Your task to perform on an android device: turn pop-ups off in chrome Image 0: 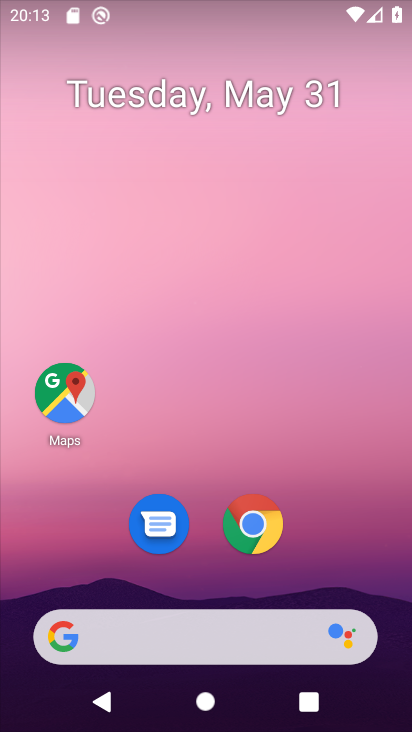
Step 0: click (258, 519)
Your task to perform on an android device: turn pop-ups off in chrome Image 1: 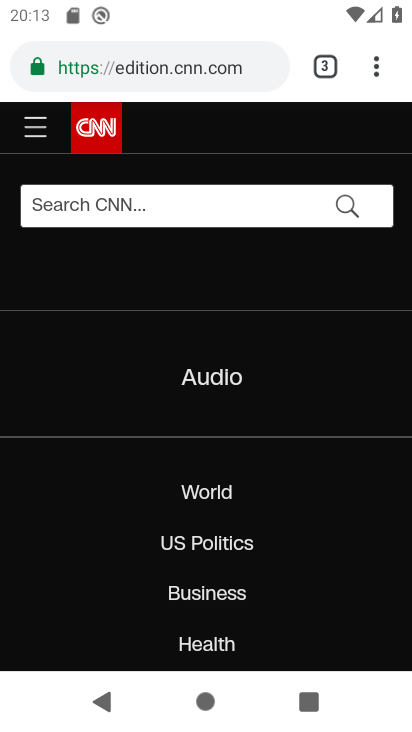
Step 1: click (375, 67)
Your task to perform on an android device: turn pop-ups off in chrome Image 2: 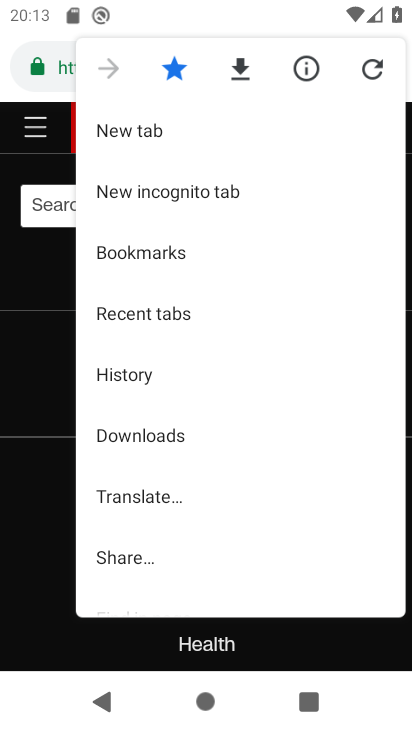
Step 2: drag from (153, 517) to (220, 211)
Your task to perform on an android device: turn pop-ups off in chrome Image 3: 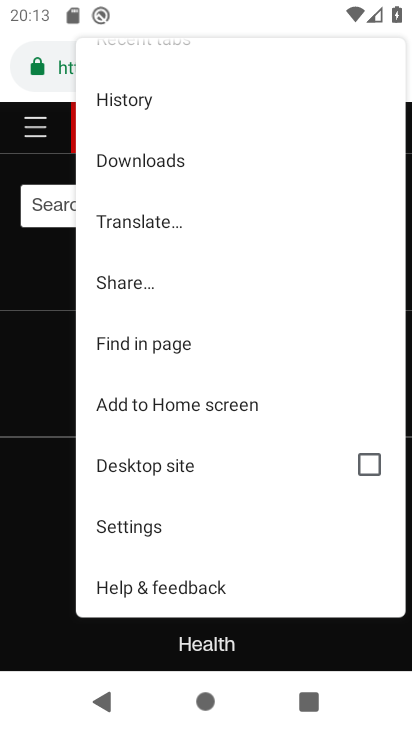
Step 3: click (150, 524)
Your task to perform on an android device: turn pop-ups off in chrome Image 4: 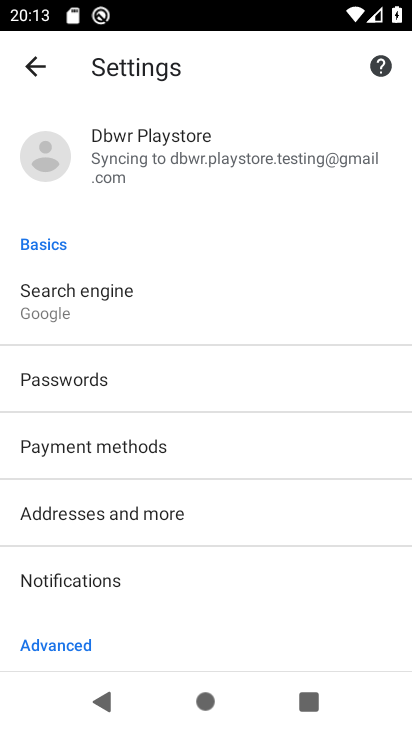
Step 4: drag from (235, 534) to (249, 217)
Your task to perform on an android device: turn pop-ups off in chrome Image 5: 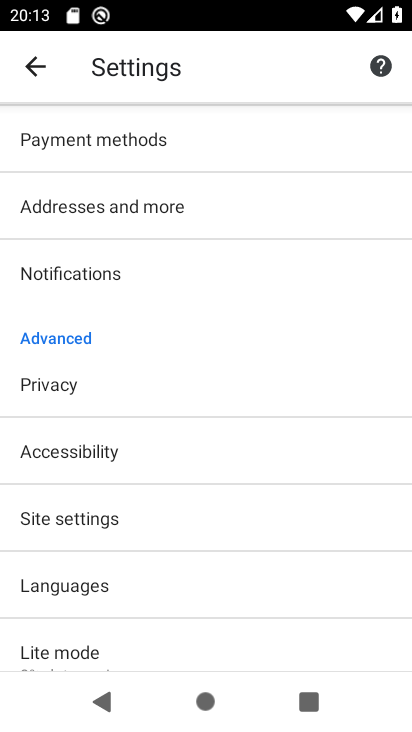
Step 5: click (166, 511)
Your task to perform on an android device: turn pop-ups off in chrome Image 6: 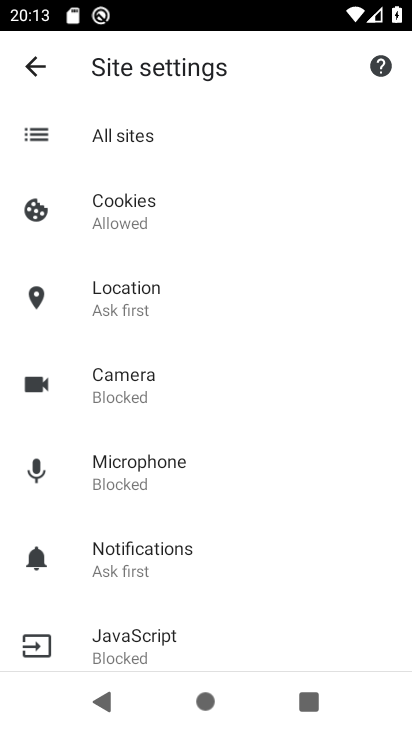
Step 6: drag from (213, 522) to (223, 300)
Your task to perform on an android device: turn pop-ups off in chrome Image 7: 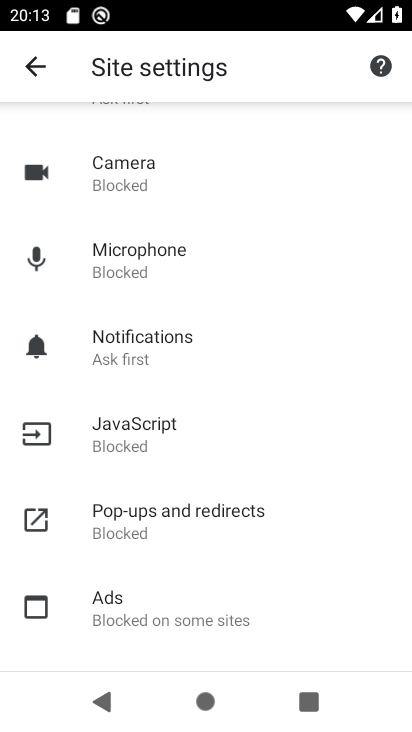
Step 7: click (222, 498)
Your task to perform on an android device: turn pop-ups off in chrome Image 8: 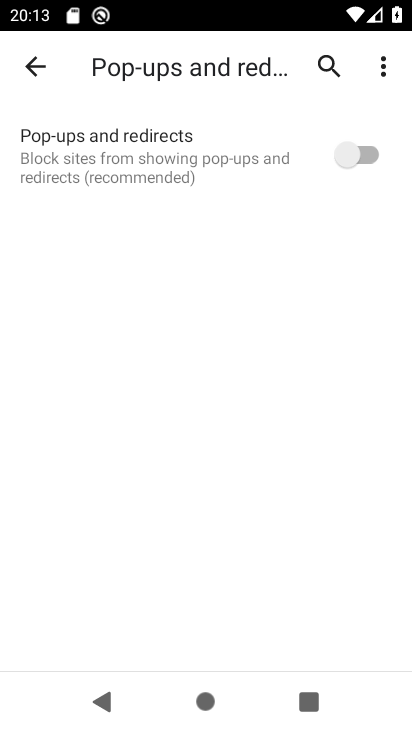
Step 8: task complete